Your task to perform on an android device: Play the last video I watched on Youtube Image 0: 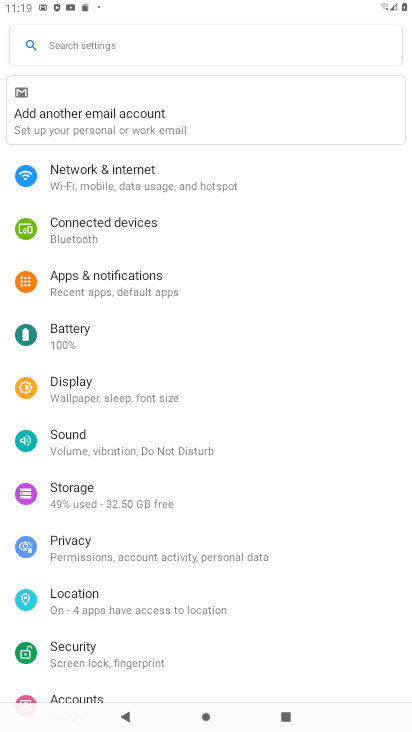
Step 0: press home button
Your task to perform on an android device: Play the last video I watched on Youtube Image 1: 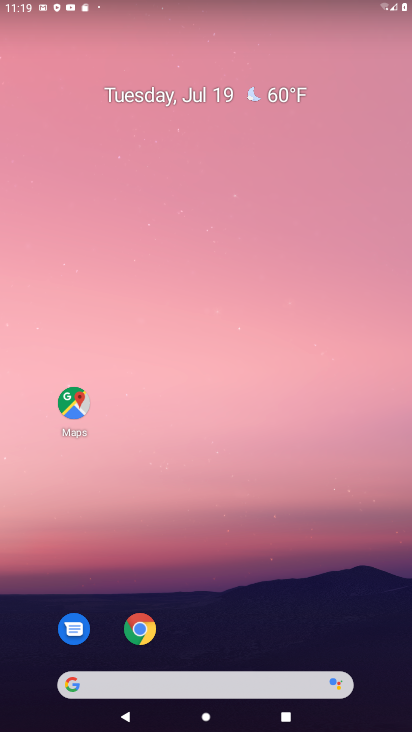
Step 1: drag from (280, 646) to (281, 132)
Your task to perform on an android device: Play the last video I watched on Youtube Image 2: 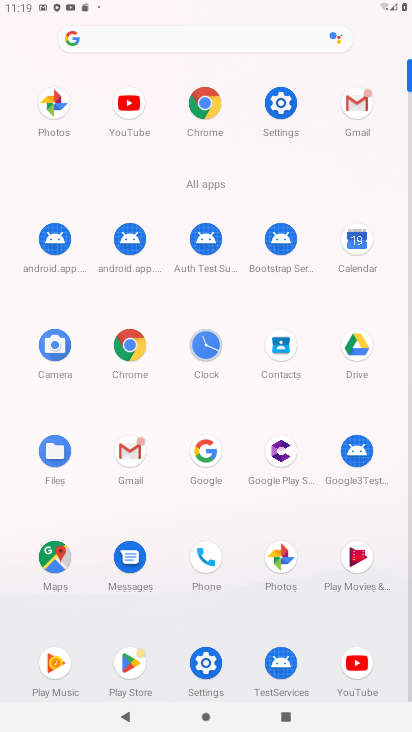
Step 2: click (355, 654)
Your task to perform on an android device: Play the last video I watched on Youtube Image 3: 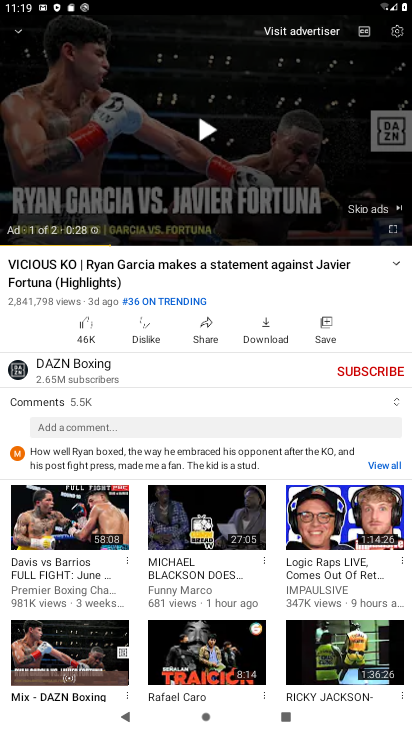
Step 3: click (20, 34)
Your task to perform on an android device: Play the last video I watched on Youtube Image 4: 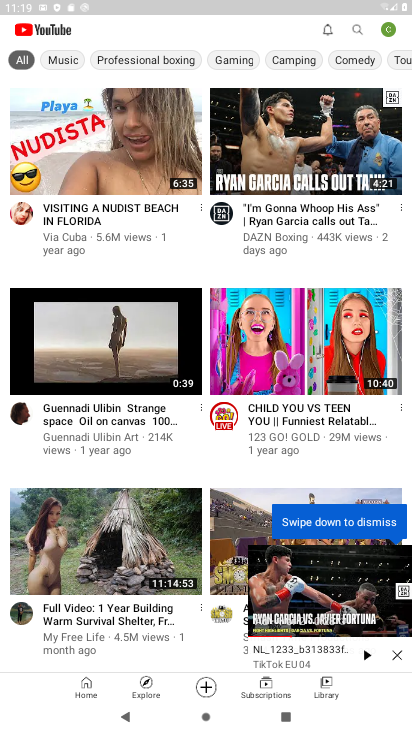
Step 4: click (328, 687)
Your task to perform on an android device: Play the last video I watched on Youtube Image 5: 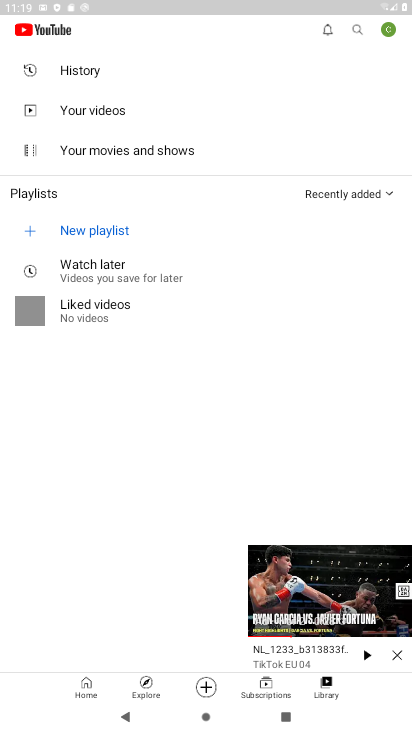
Step 5: click (123, 70)
Your task to perform on an android device: Play the last video I watched on Youtube Image 6: 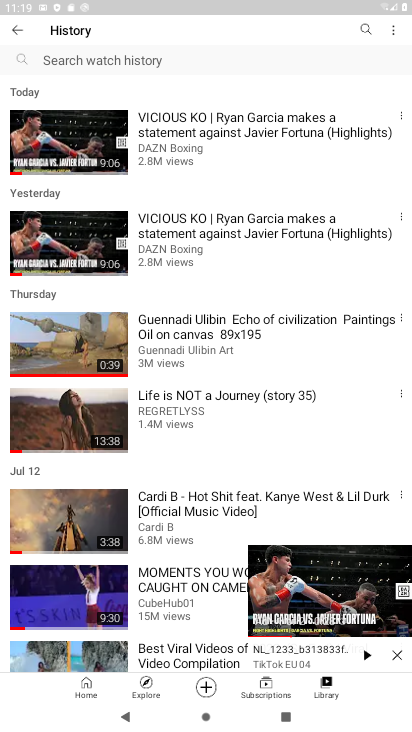
Step 6: click (85, 148)
Your task to perform on an android device: Play the last video I watched on Youtube Image 7: 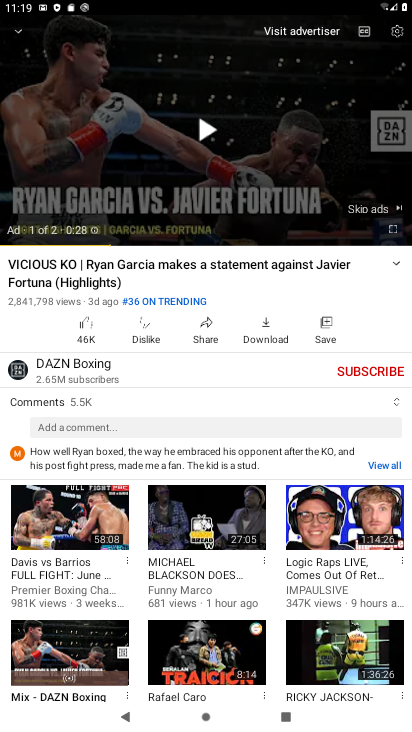
Step 7: click (215, 130)
Your task to perform on an android device: Play the last video I watched on Youtube Image 8: 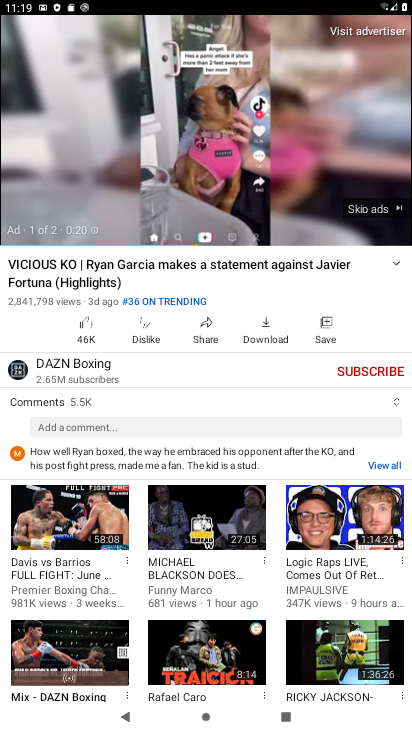
Step 8: task complete